Your task to perform on an android device: refresh tabs in the chrome app Image 0: 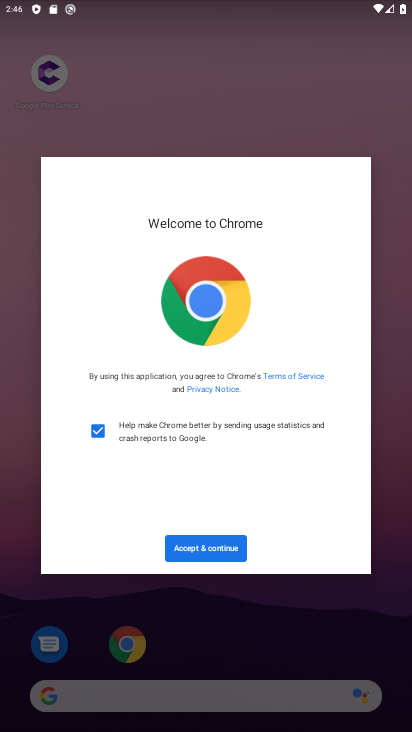
Step 0: press home button
Your task to perform on an android device: refresh tabs in the chrome app Image 1: 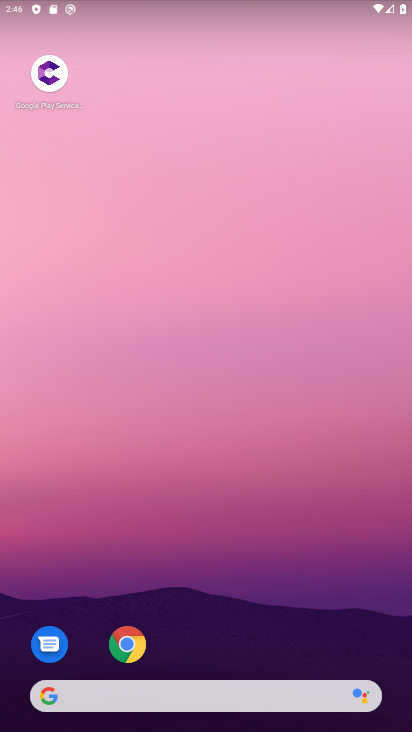
Step 1: click (124, 644)
Your task to perform on an android device: refresh tabs in the chrome app Image 2: 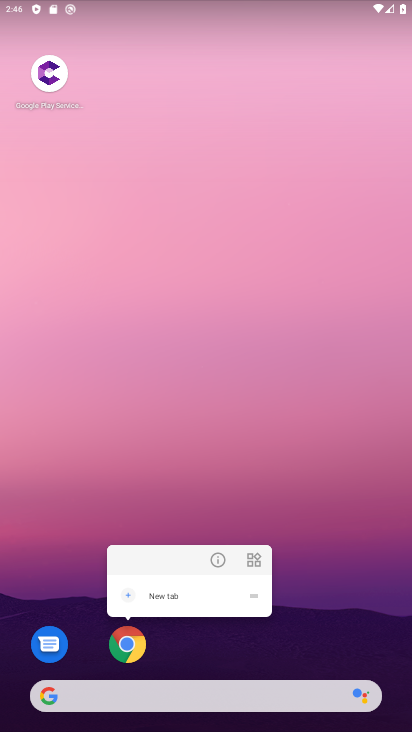
Step 2: click (124, 644)
Your task to perform on an android device: refresh tabs in the chrome app Image 3: 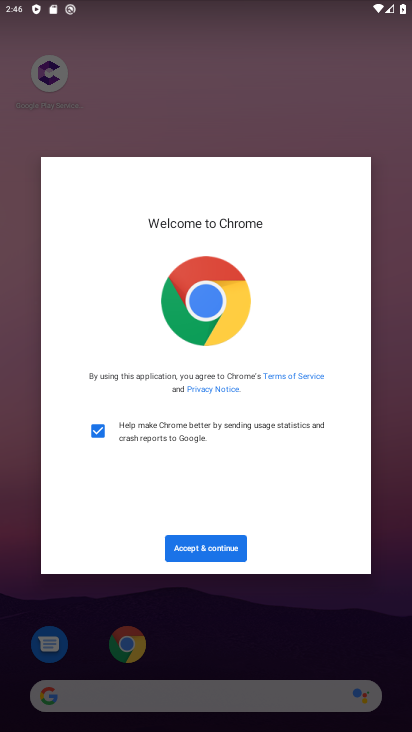
Step 3: click (176, 551)
Your task to perform on an android device: refresh tabs in the chrome app Image 4: 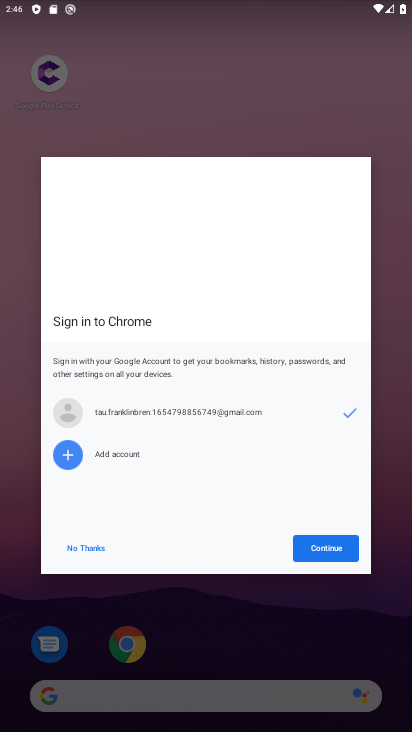
Step 4: click (362, 551)
Your task to perform on an android device: refresh tabs in the chrome app Image 5: 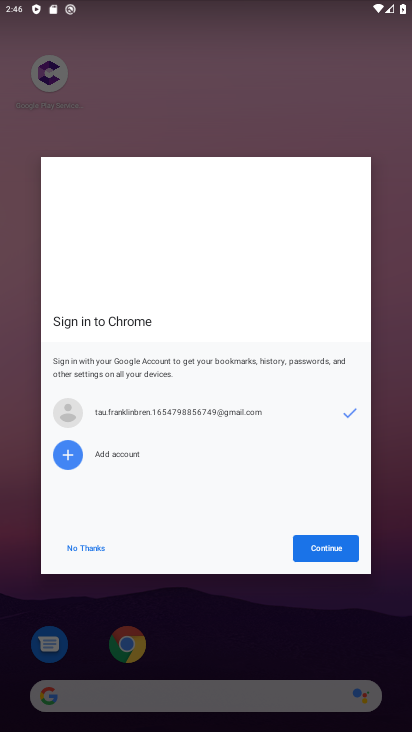
Step 5: click (352, 553)
Your task to perform on an android device: refresh tabs in the chrome app Image 6: 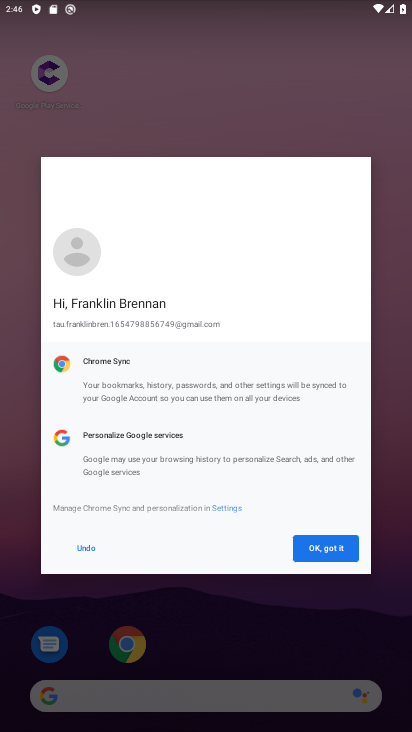
Step 6: click (351, 554)
Your task to perform on an android device: refresh tabs in the chrome app Image 7: 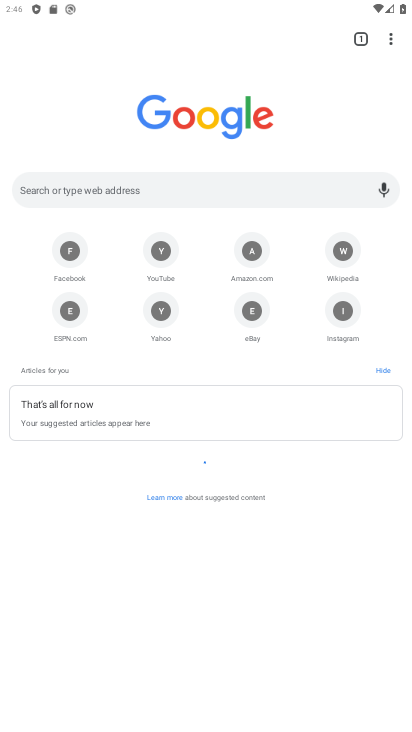
Step 7: click (359, 41)
Your task to perform on an android device: refresh tabs in the chrome app Image 8: 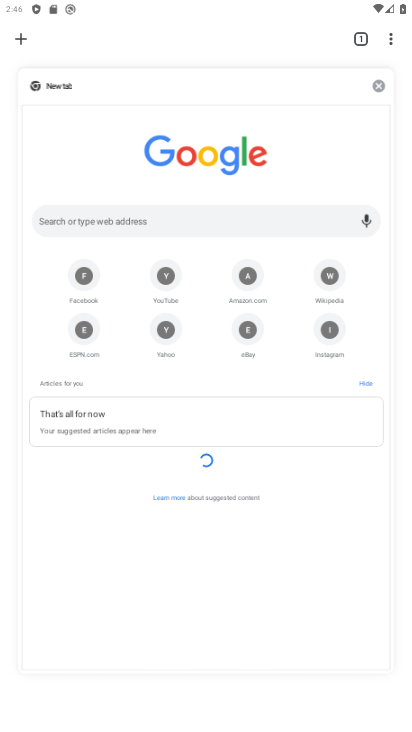
Step 8: click (393, 32)
Your task to perform on an android device: refresh tabs in the chrome app Image 9: 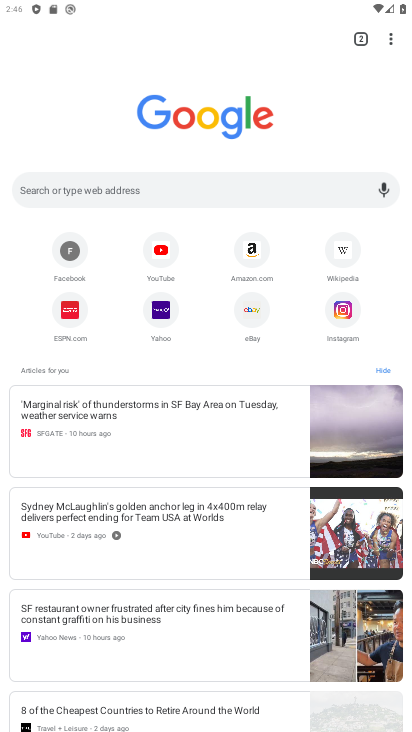
Step 9: click (391, 38)
Your task to perform on an android device: refresh tabs in the chrome app Image 10: 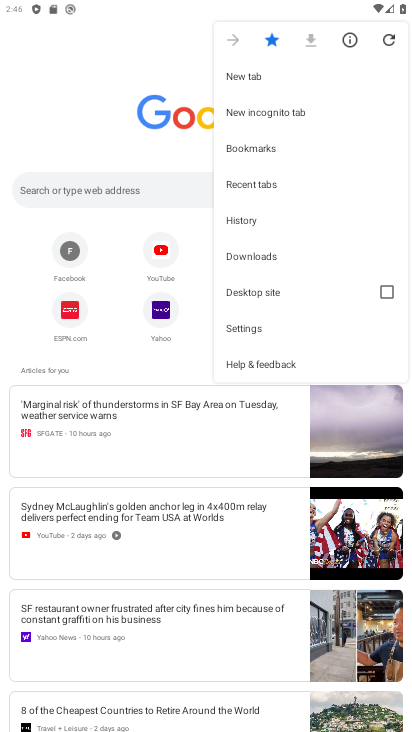
Step 10: click (385, 41)
Your task to perform on an android device: refresh tabs in the chrome app Image 11: 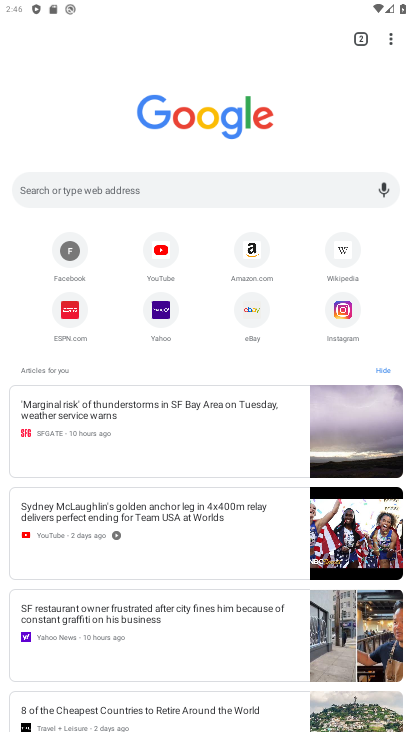
Step 11: task complete